Your task to perform on an android device: Open Chrome and go to settings Image 0: 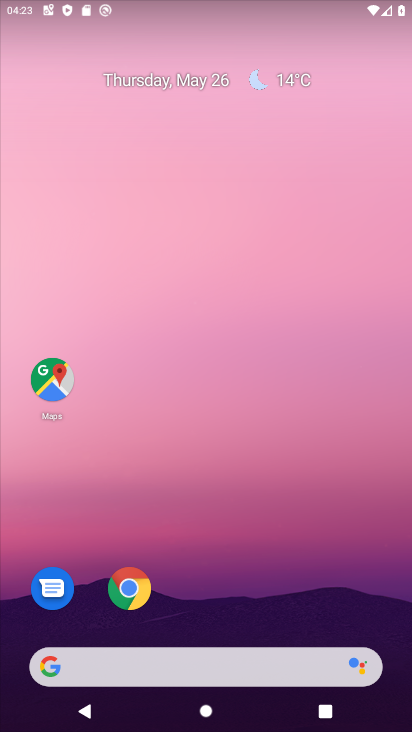
Step 0: drag from (271, 610) to (281, 228)
Your task to perform on an android device: Open Chrome and go to settings Image 1: 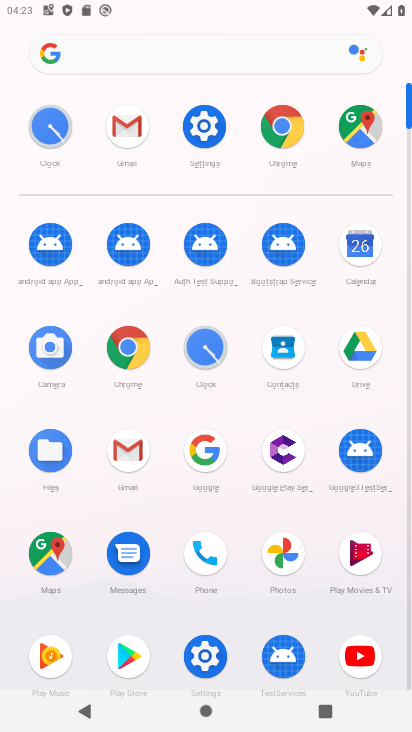
Step 1: click (269, 143)
Your task to perform on an android device: Open Chrome and go to settings Image 2: 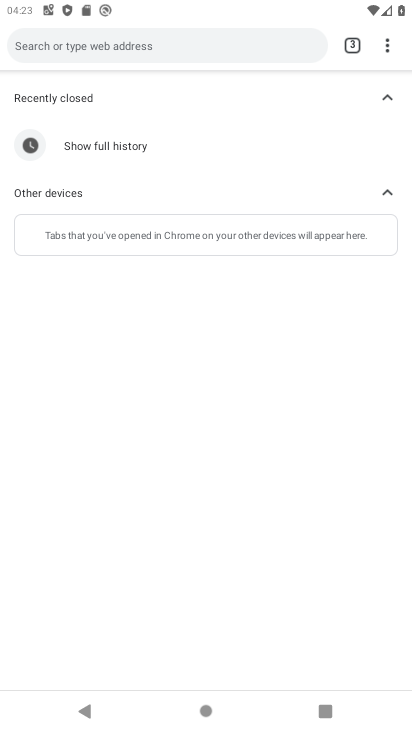
Step 2: click (374, 53)
Your task to perform on an android device: Open Chrome and go to settings Image 3: 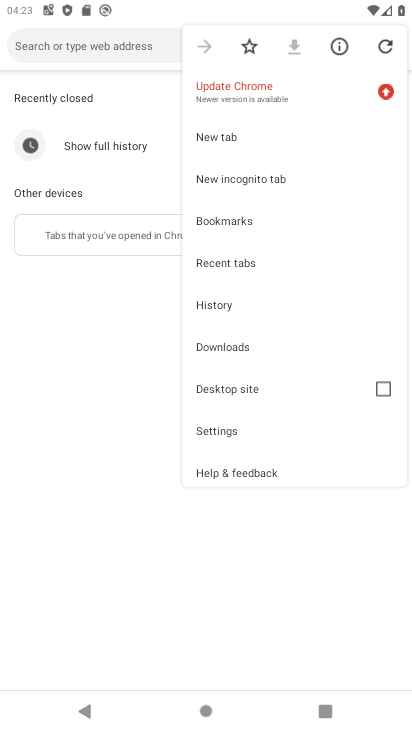
Step 3: click (236, 420)
Your task to perform on an android device: Open Chrome and go to settings Image 4: 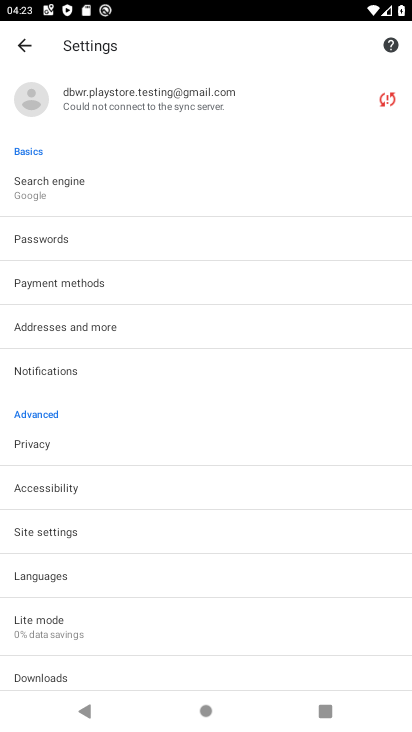
Step 4: task complete